Your task to perform on an android device: toggle data saver in the chrome app Image 0: 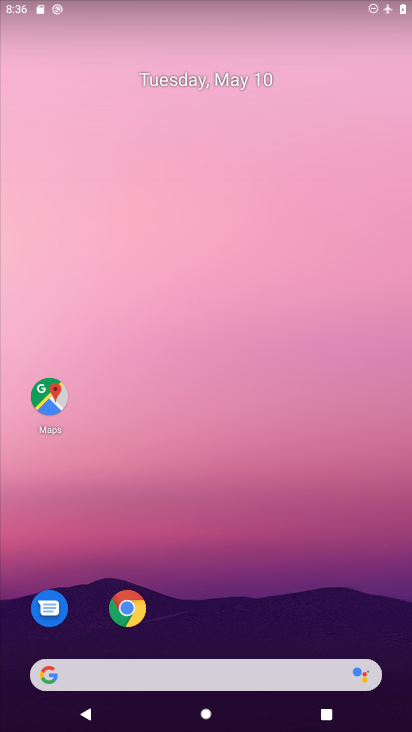
Step 0: drag from (260, 531) to (277, 272)
Your task to perform on an android device: toggle data saver in the chrome app Image 1: 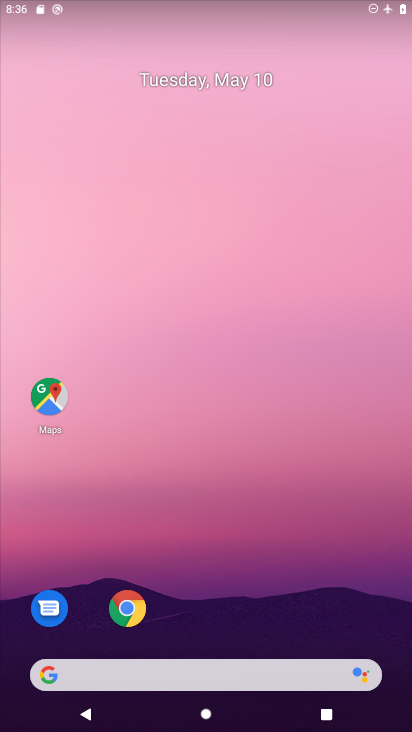
Step 1: drag from (222, 633) to (252, 316)
Your task to perform on an android device: toggle data saver in the chrome app Image 2: 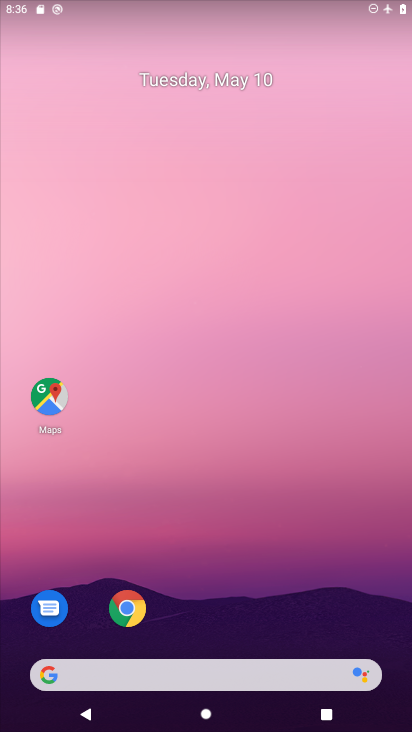
Step 2: drag from (247, 629) to (276, 323)
Your task to perform on an android device: toggle data saver in the chrome app Image 3: 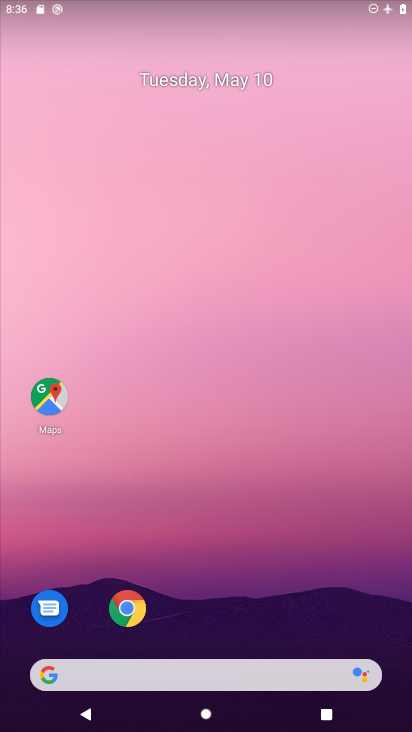
Step 3: drag from (250, 607) to (265, 318)
Your task to perform on an android device: toggle data saver in the chrome app Image 4: 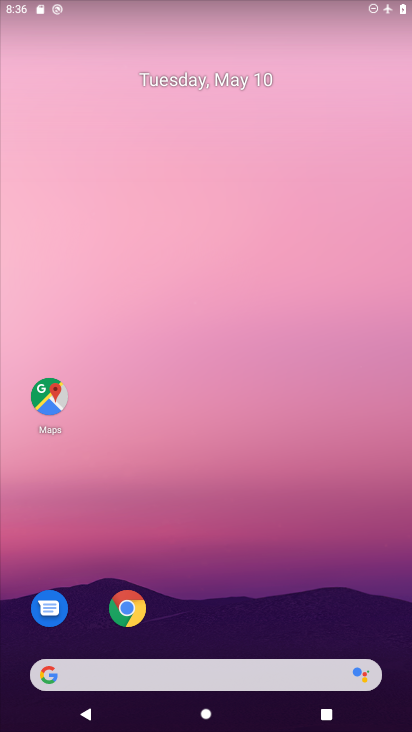
Step 4: drag from (288, 422) to (304, 305)
Your task to perform on an android device: toggle data saver in the chrome app Image 5: 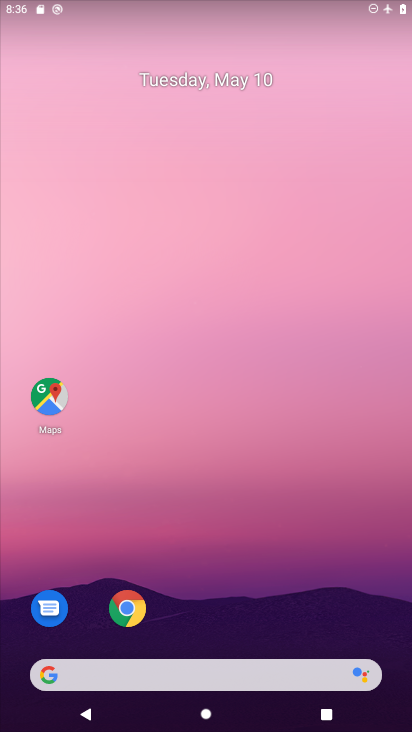
Step 5: drag from (222, 619) to (262, 162)
Your task to perform on an android device: toggle data saver in the chrome app Image 6: 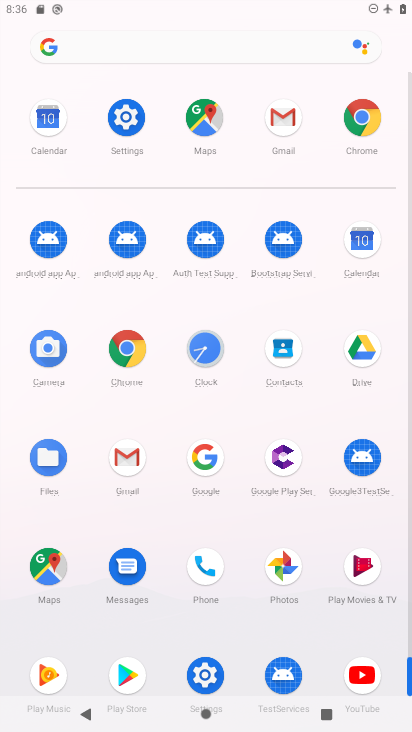
Step 6: click (125, 351)
Your task to perform on an android device: toggle data saver in the chrome app Image 7: 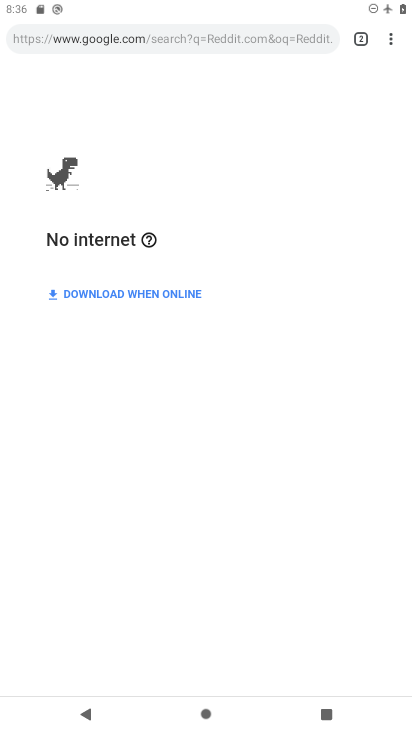
Step 7: click (382, 36)
Your task to perform on an android device: toggle data saver in the chrome app Image 8: 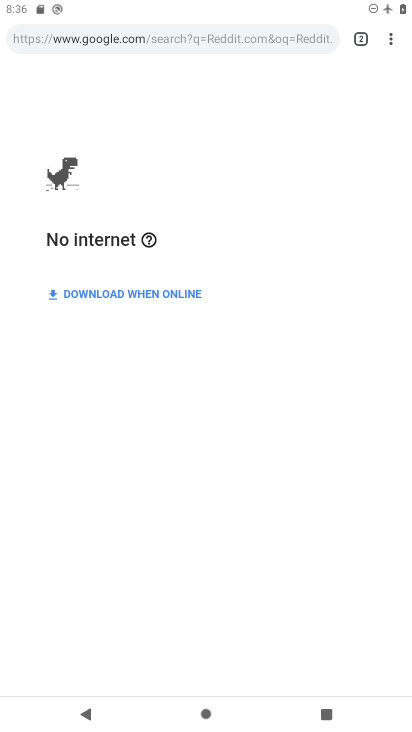
Step 8: click (373, 37)
Your task to perform on an android device: toggle data saver in the chrome app Image 9: 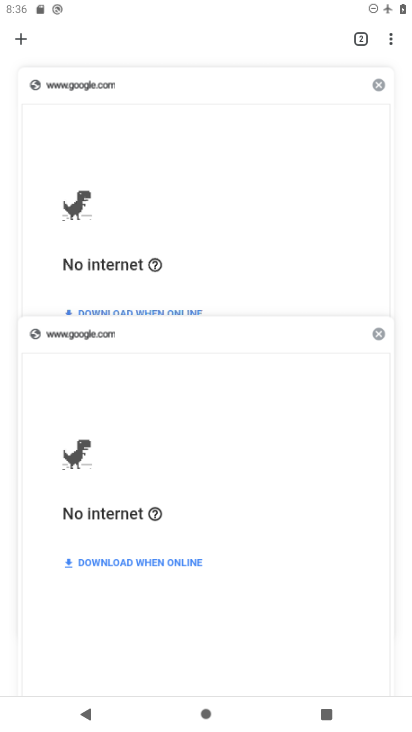
Step 9: click (382, 32)
Your task to perform on an android device: toggle data saver in the chrome app Image 10: 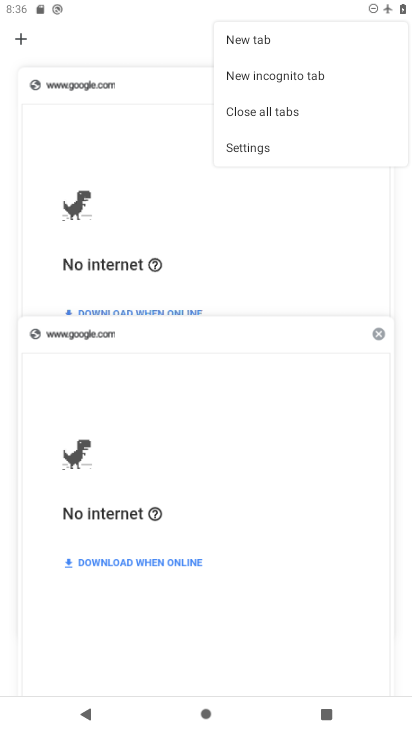
Step 10: click (271, 141)
Your task to perform on an android device: toggle data saver in the chrome app Image 11: 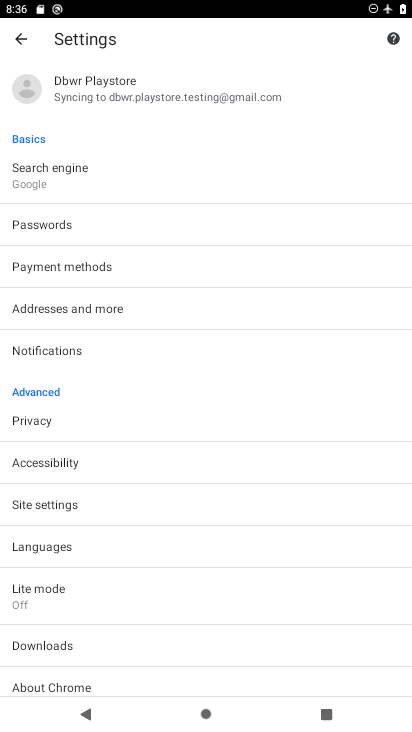
Step 11: click (75, 597)
Your task to perform on an android device: toggle data saver in the chrome app Image 12: 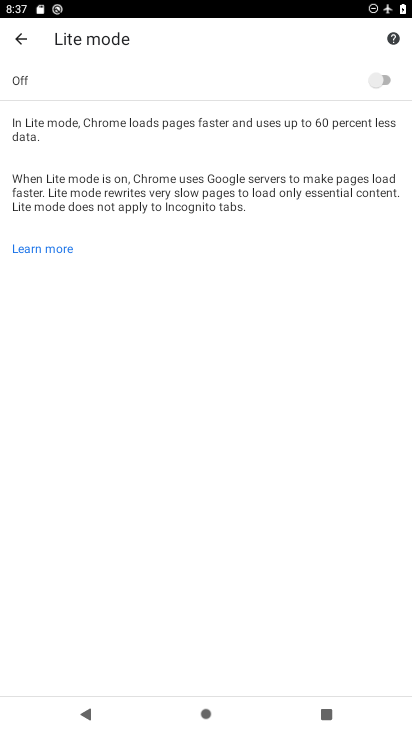
Step 12: click (378, 77)
Your task to perform on an android device: toggle data saver in the chrome app Image 13: 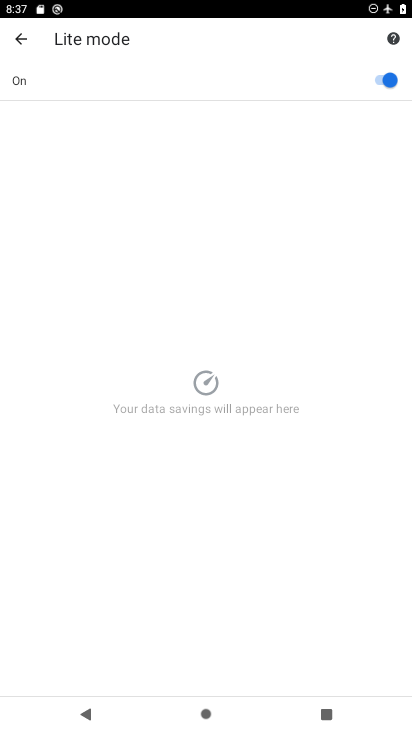
Step 13: task complete